Your task to perform on an android device: Go to wifi settings Image 0: 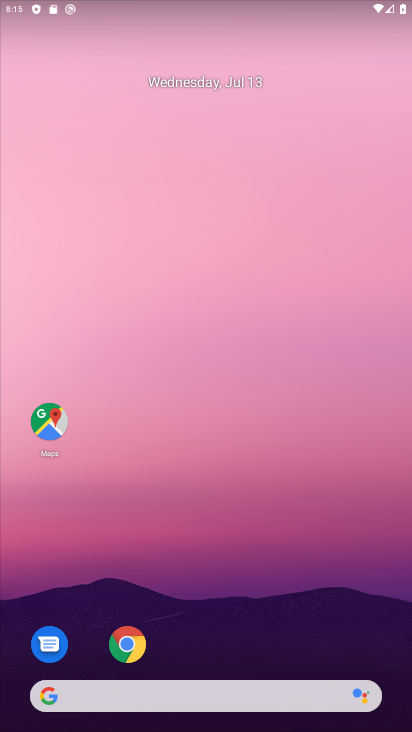
Step 0: drag from (239, 597) to (275, 13)
Your task to perform on an android device: Go to wifi settings Image 1: 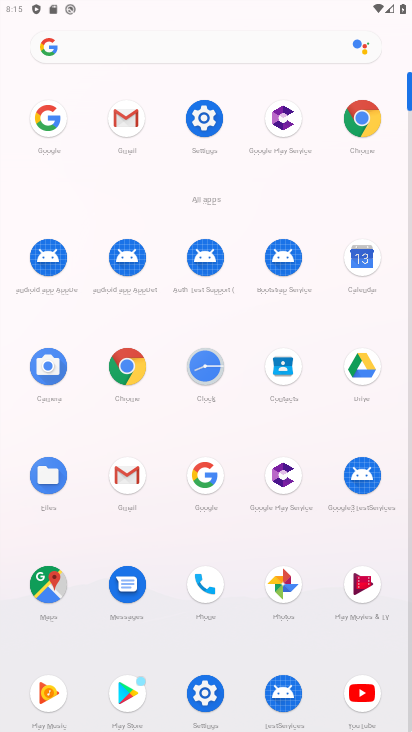
Step 1: click (209, 121)
Your task to perform on an android device: Go to wifi settings Image 2: 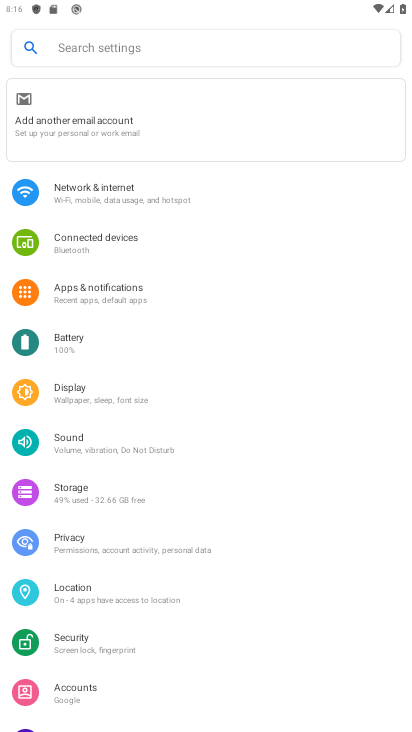
Step 2: click (82, 188)
Your task to perform on an android device: Go to wifi settings Image 3: 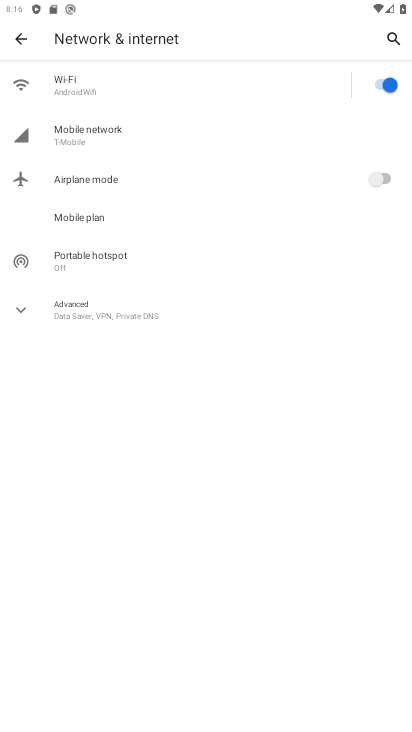
Step 3: click (72, 85)
Your task to perform on an android device: Go to wifi settings Image 4: 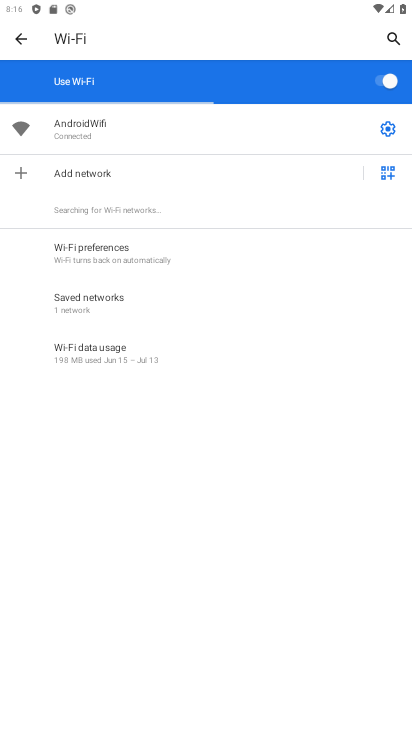
Step 4: task complete